Your task to perform on an android device: See recent photos Image 0: 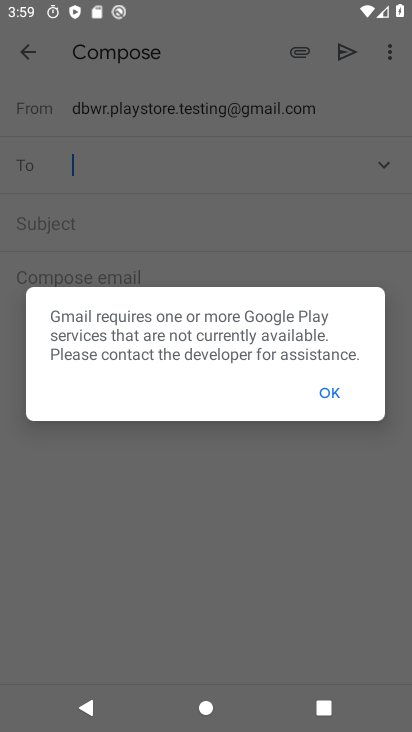
Step 0: press home button
Your task to perform on an android device: See recent photos Image 1: 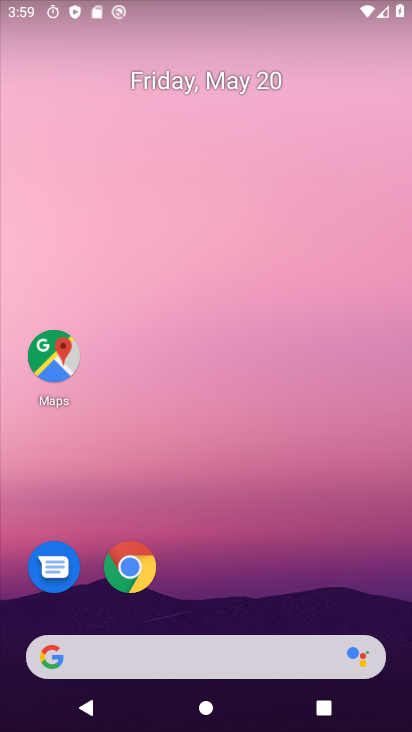
Step 1: drag from (206, 612) to (207, 21)
Your task to perform on an android device: See recent photos Image 2: 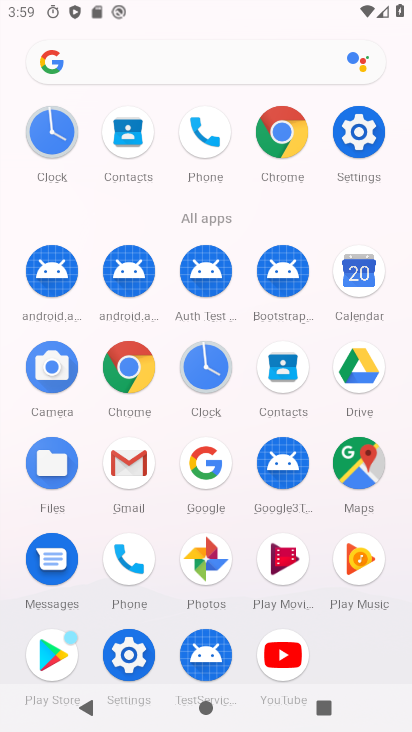
Step 2: click (193, 563)
Your task to perform on an android device: See recent photos Image 3: 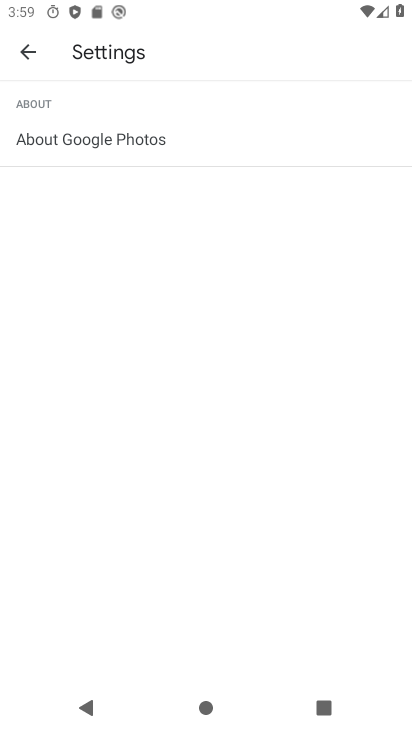
Step 3: click (25, 43)
Your task to perform on an android device: See recent photos Image 4: 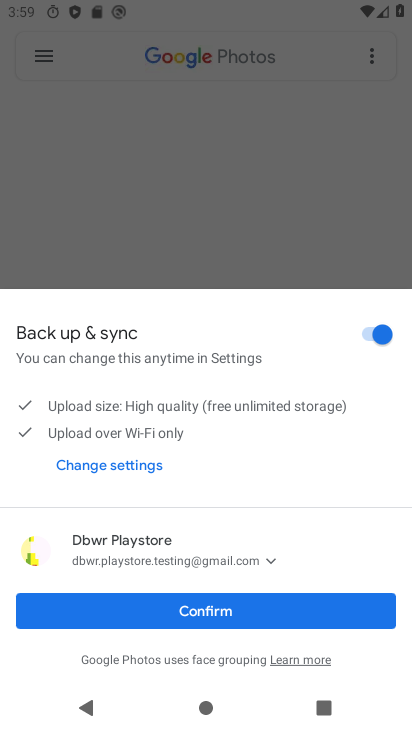
Step 4: click (201, 611)
Your task to perform on an android device: See recent photos Image 5: 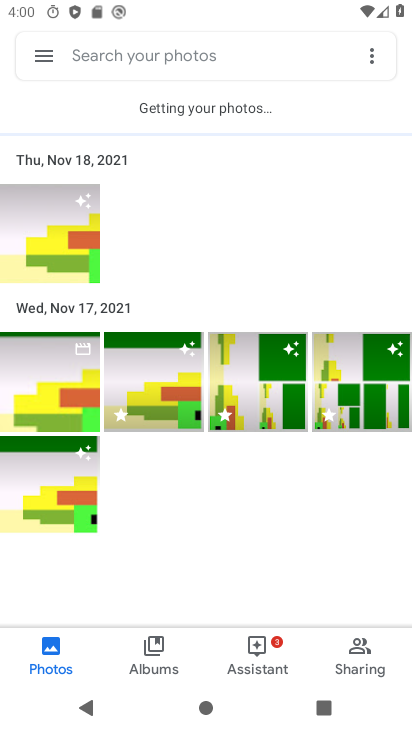
Step 5: task complete